Your task to perform on an android device: Is it going to rain tomorrow? Image 0: 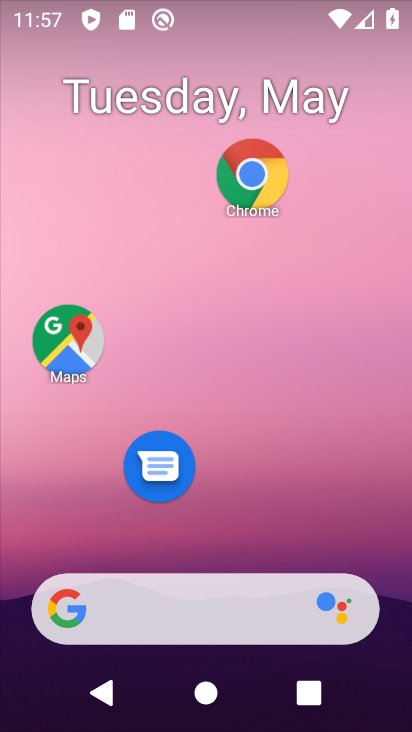
Step 0: click (240, 585)
Your task to perform on an android device: Is it going to rain tomorrow? Image 1: 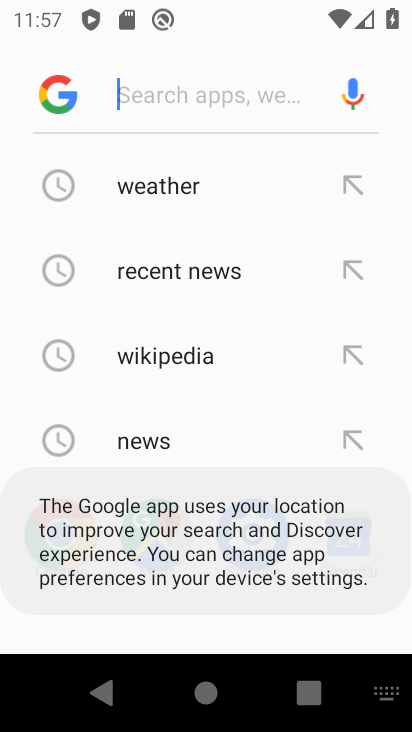
Step 1: click (156, 201)
Your task to perform on an android device: Is it going to rain tomorrow? Image 2: 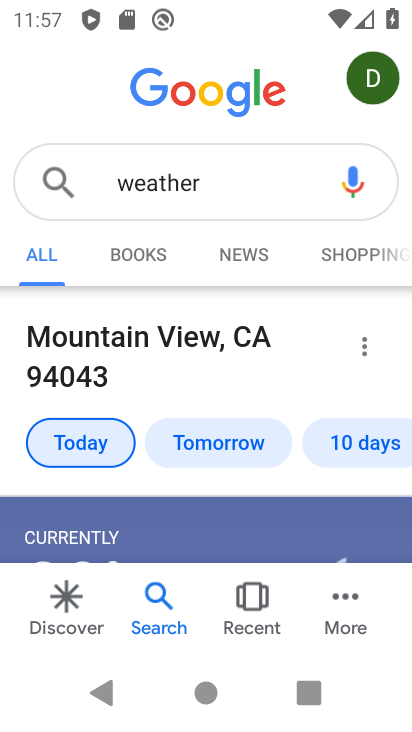
Step 2: click (223, 432)
Your task to perform on an android device: Is it going to rain tomorrow? Image 3: 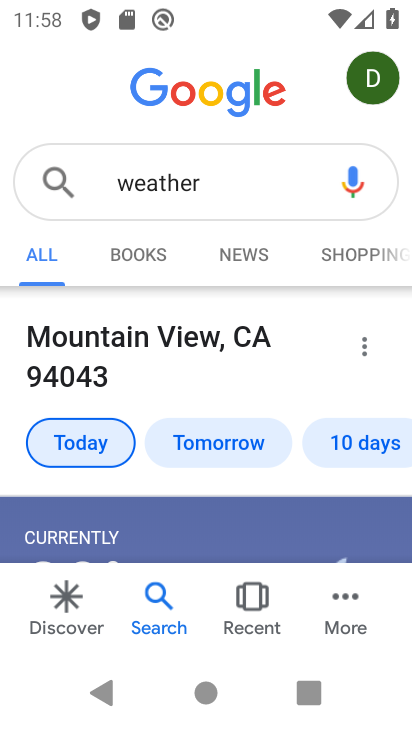
Step 3: click (223, 432)
Your task to perform on an android device: Is it going to rain tomorrow? Image 4: 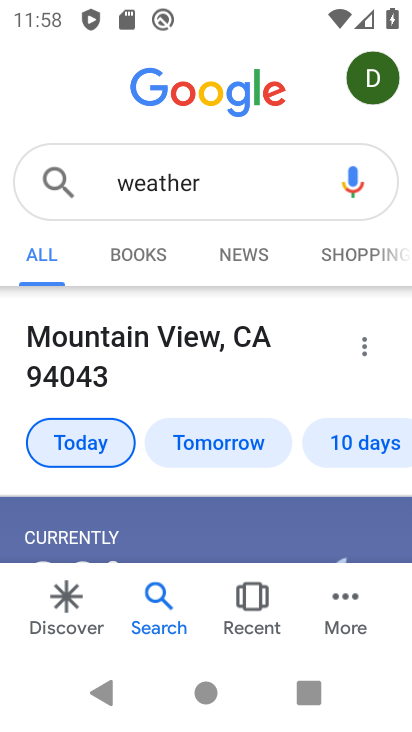
Step 4: click (216, 455)
Your task to perform on an android device: Is it going to rain tomorrow? Image 5: 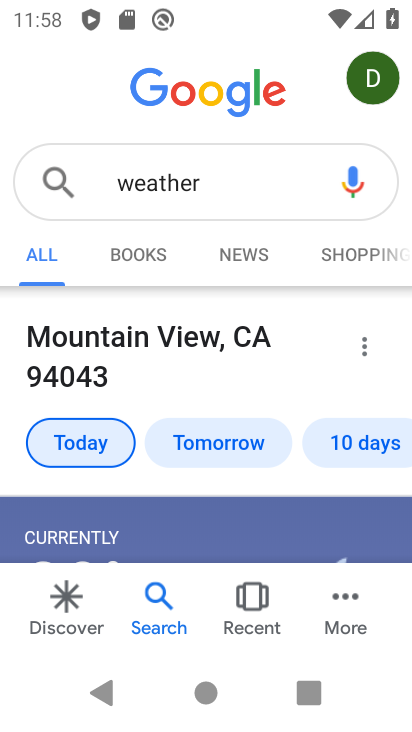
Step 5: click (216, 455)
Your task to perform on an android device: Is it going to rain tomorrow? Image 6: 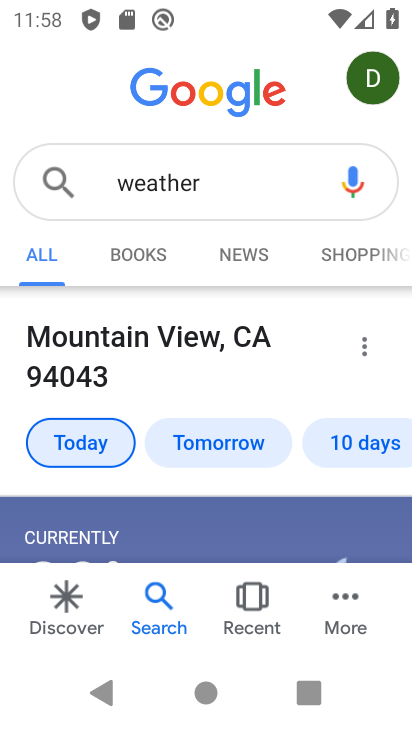
Step 6: task complete